Your task to perform on an android device: change the upload size in google photos Image 0: 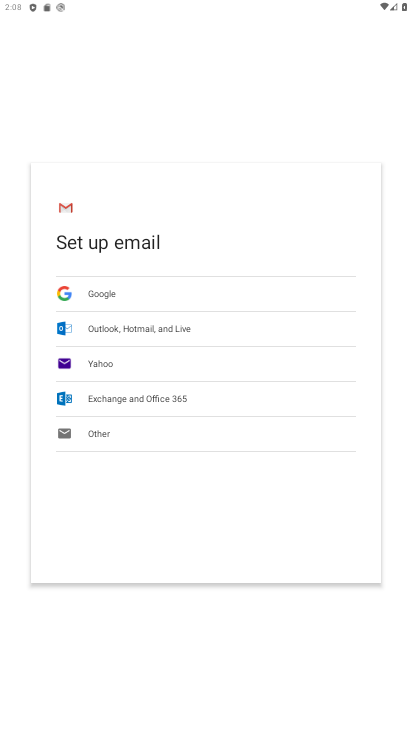
Step 0: press home button
Your task to perform on an android device: change the upload size in google photos Image 1: 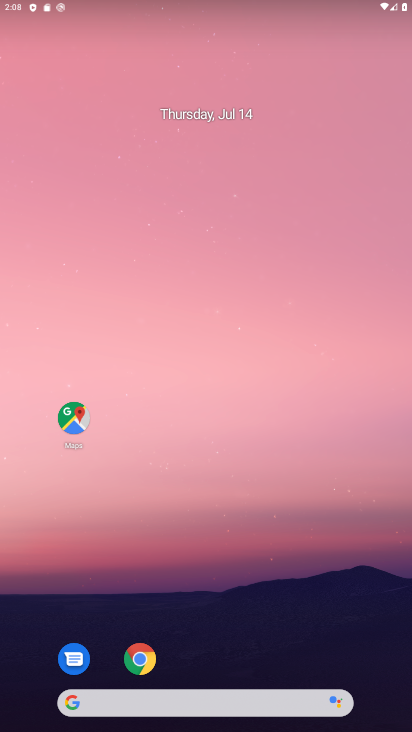
Step 1: drag from (305, 605) to (257, 46)
Your task to perform on an android device: change the upload size in google photos Image 2: 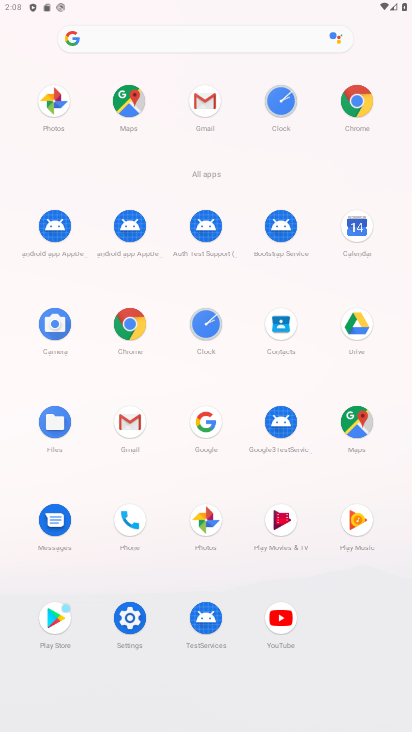
Step 2: click (203, 510)
Your task to perform on an android device: change the upload size in google photos Image 3: 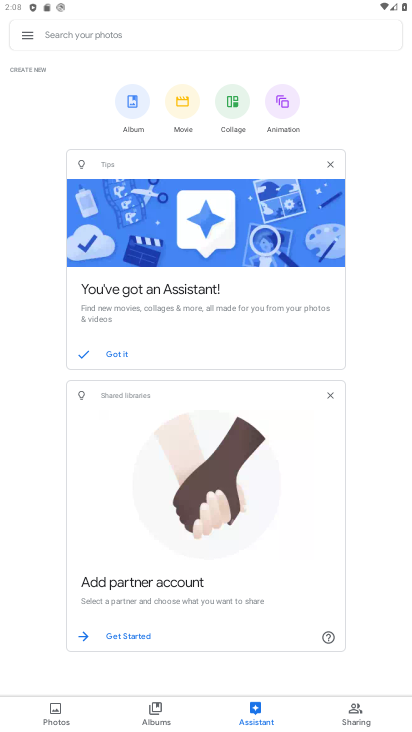
Step 3: click (24, 43)
Your task to perform on an android device: change the upload size in google photos Image 4: 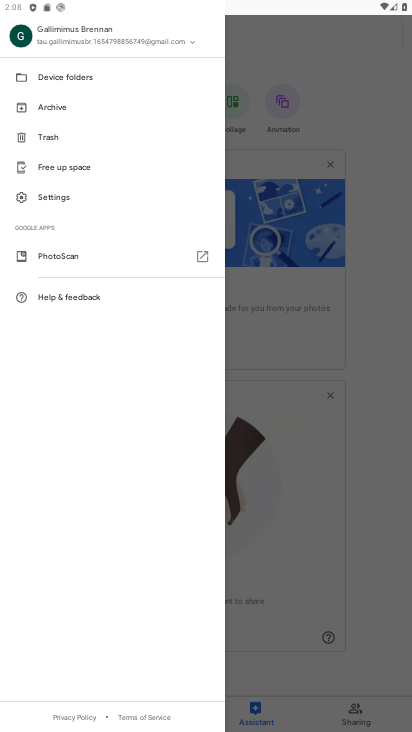
Step 4: click (40, 200)
Your task to perform on an android device: change the upload size in google photos Image 5: 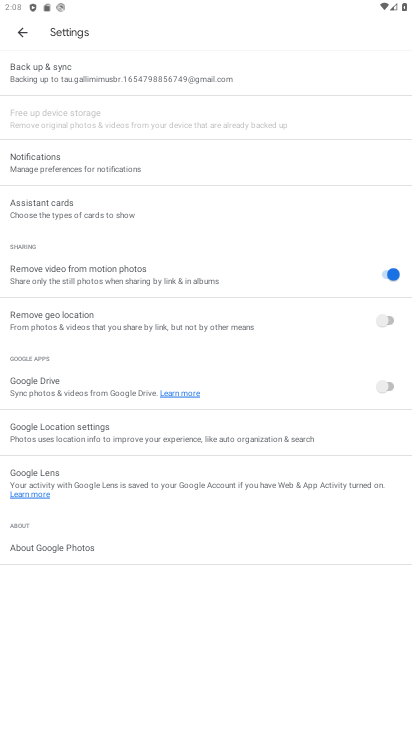
Step 5: click (81, 76)
Your task to perform on an android device: change the upload size in google photos Image 6: 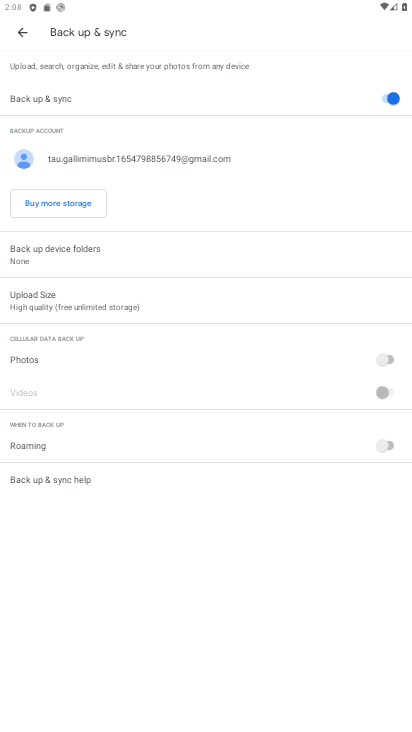
Step 6: click (69, 298)
Your task to perform on an android device: change the upload size in google photos Image 7: 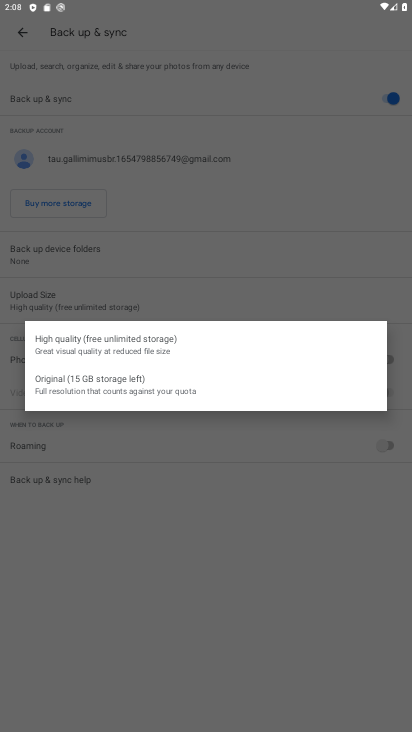
Step 7: click (116, 387)
Your task to perform on an android device: change the upload size in google photos Image 8: 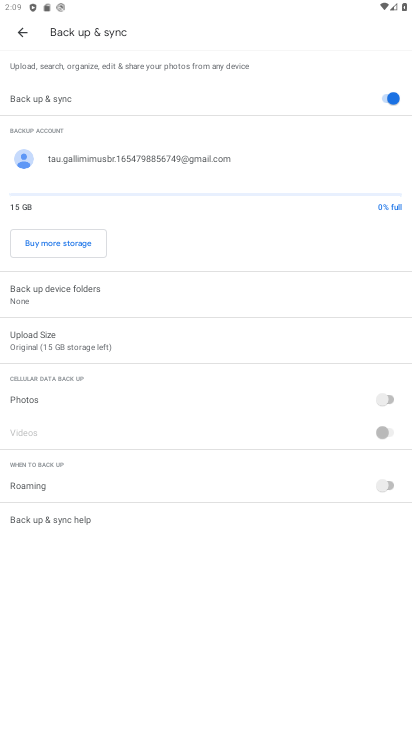
Step 8: task complete